Your task to perform on an android device: toggle translation in the chrome app Image 0: 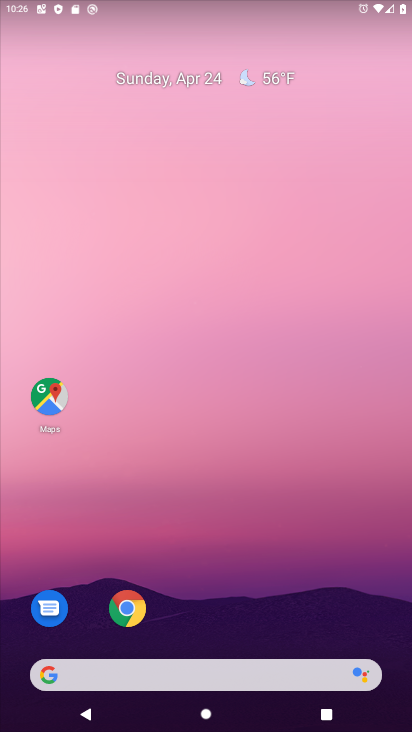
Step 0: drag from (138, 91) to (119, 4)
Your task to perform on an android device: toggle translation in the chrome app Image 1: 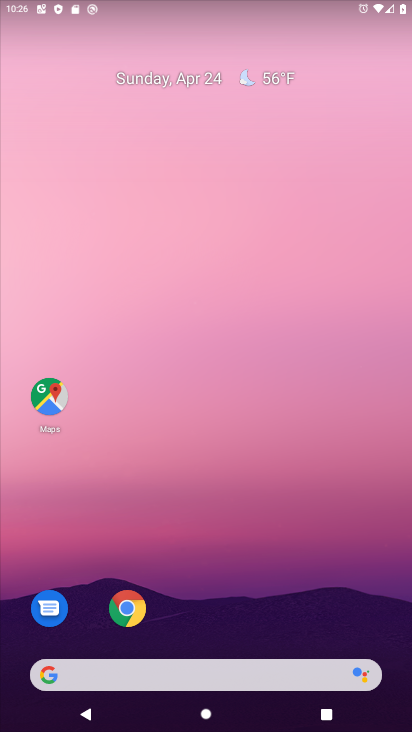
Step 1: drag from (191, 645) to (239, 13)
Your task to perform on an android device: toggle translation in the chrome app Image 2: 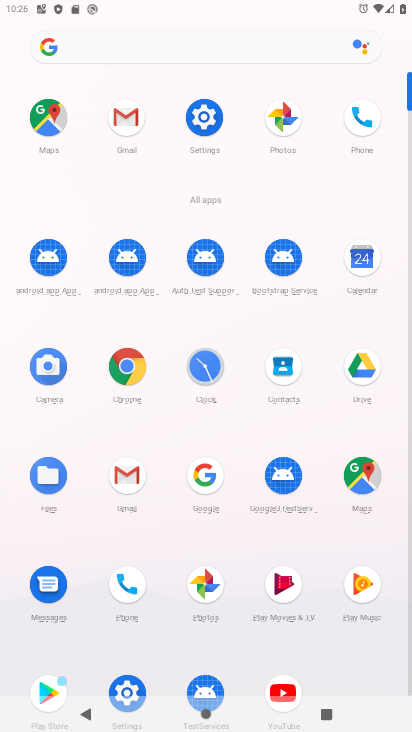
Step 2: click (129, 363)
Your task to perform on an android device: toggle translation in the chrome app Image 3: 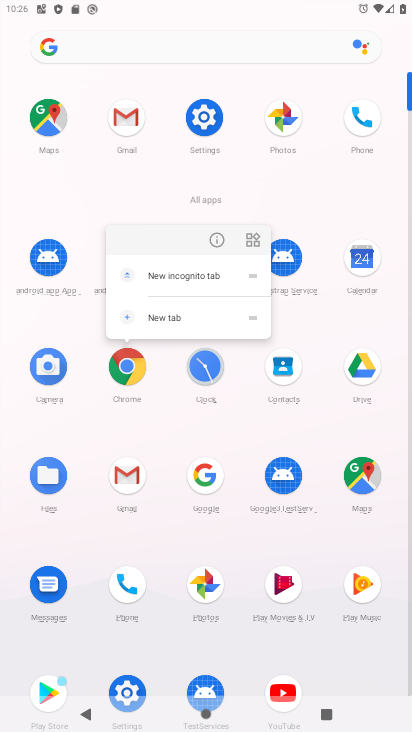
Step 3: click (128, 375)
Your task to perform on an android device: toggle translation in the chrome app Image 4: 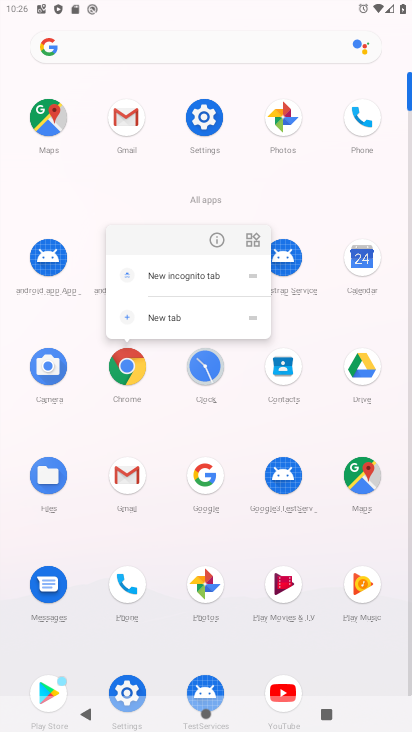
Step 4: click (132, 369)
Your task to perform on an android device: toggle translation in the chrome app Image 5: 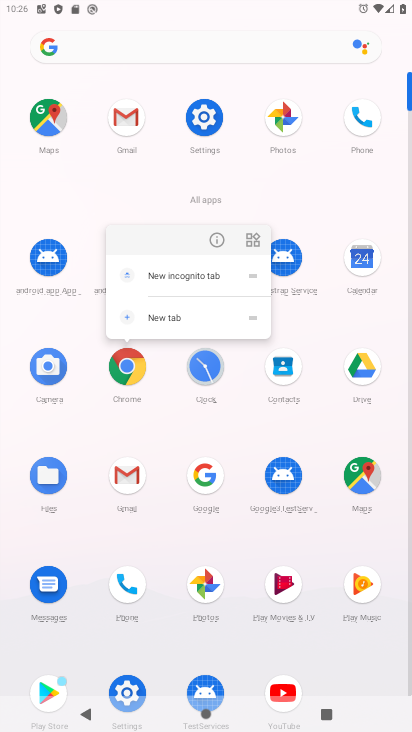
Step 5: click (127, 378)
Your task to perform on an android device: toggle translation in the chrome app Image 6: 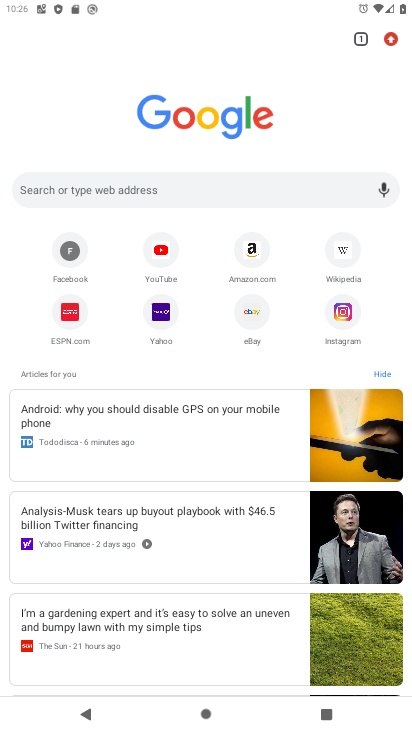
Step 6: drag from (391, 38) to (260, 367)
Your task to perform on an android device: toggle translation in the chrome app Image 7: 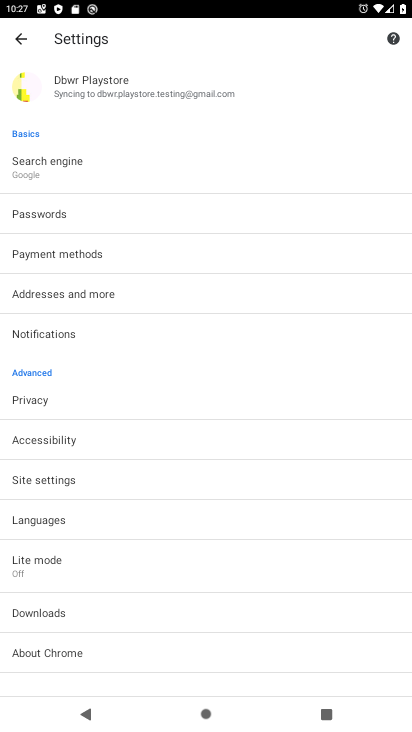
Step 7: click (39, 526)
Your task to perform on an android device: toggle translation in the chrome app Image 8: 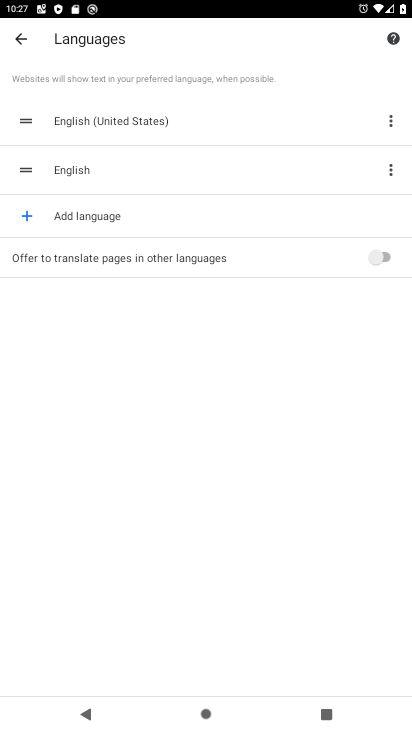
Step 8: click (158, 251)
Your task to perform on an android device: toggle translation in the chrome app Image 9: 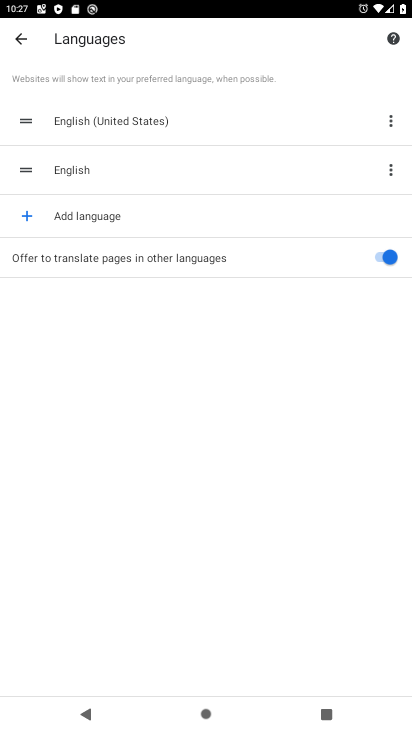
Step 9: task complete